Your task to perform on an android device: Is it going to rain today? Image 0: 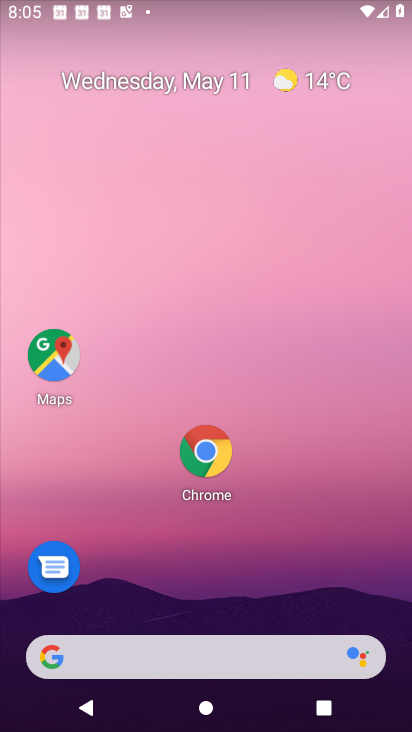
Step 0: click (332, 85)
Your task to perform on an android device: Is it going to rain today? Image 1: 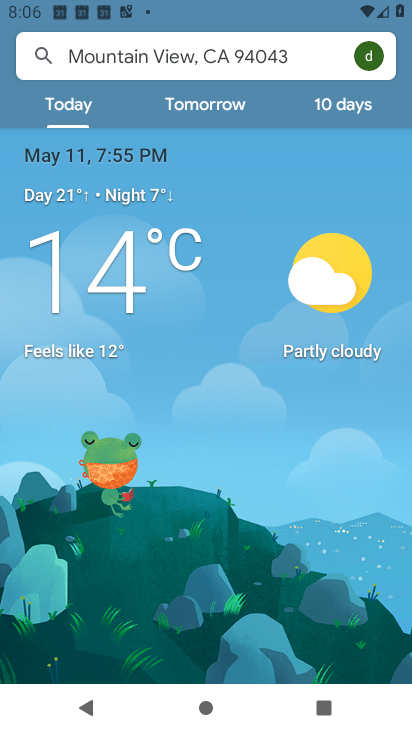
Step 1: task complete